Your task to perform on an android device: set an alarm Image 0: 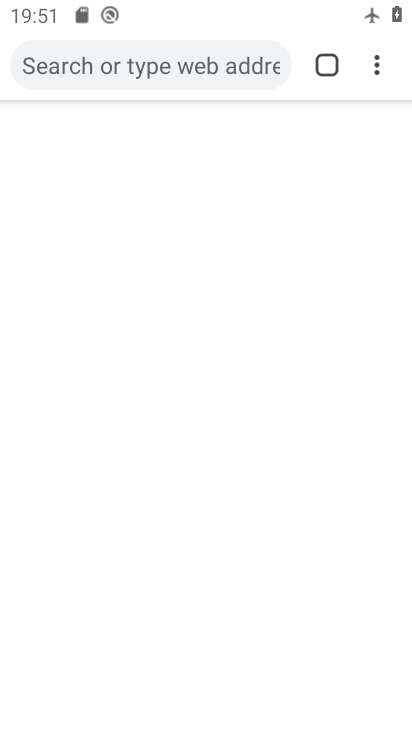
Step 0: click (259, 600)
Your task to perform on an android device: set an alarm Image 1: 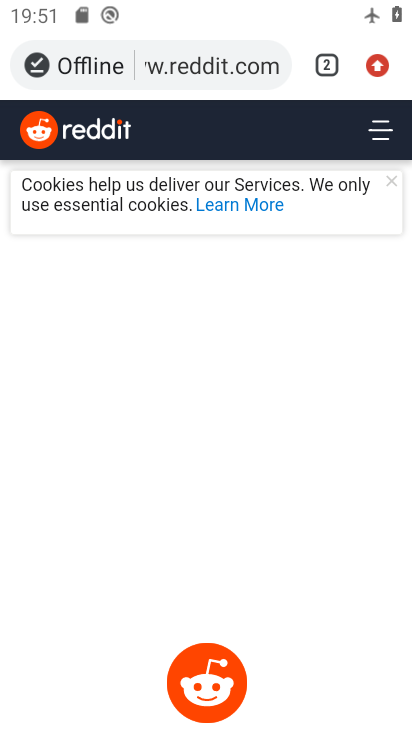
Step 1: press back button
Your task to perform on an android device: set an alarm Image 2: 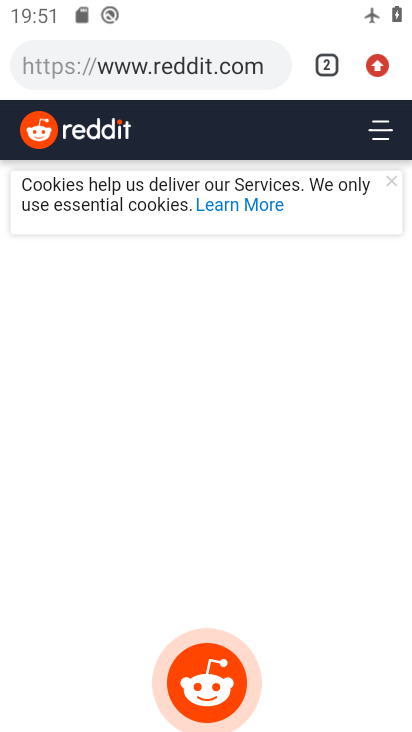
Step 2: press back button
Your task to perform on an android device: set an alarm Image 3: 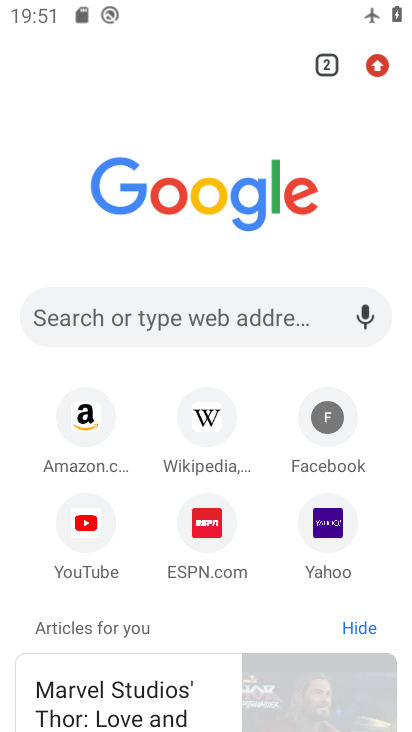
Step 3: press back button
Your task to perform on an android device: set an alarm Image 4: 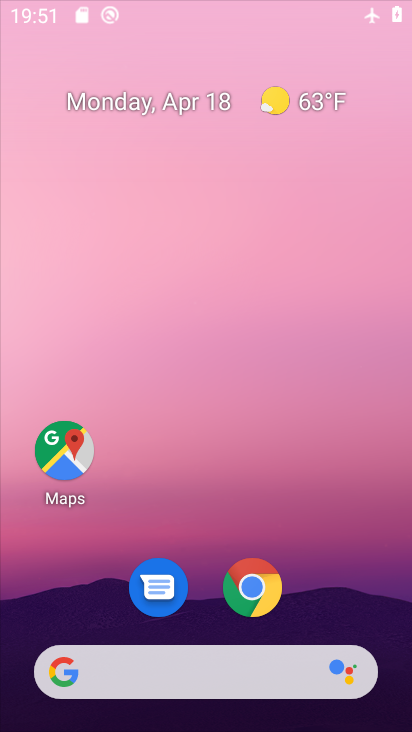
Step 4: press back button
Your task to perform on an android device: set an alarm Image 5: 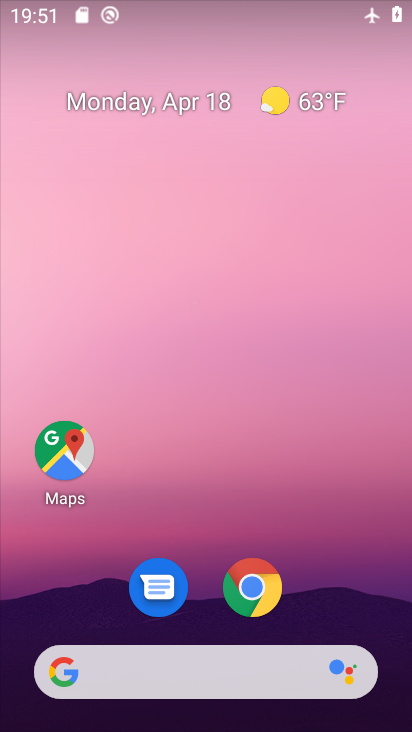
Step 5: drag from (374, 595) to (233, 166)
Your task to perform on an android device: set an alarm Image 6: 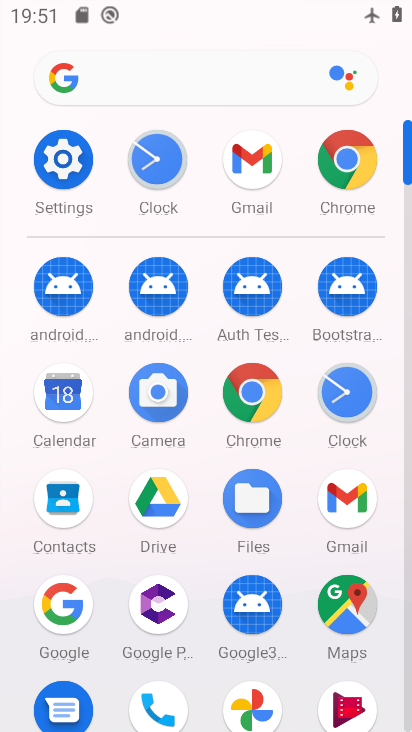
Step 6: click (153, 206)
Your task to perform on an android device: set an alarm Image 7: 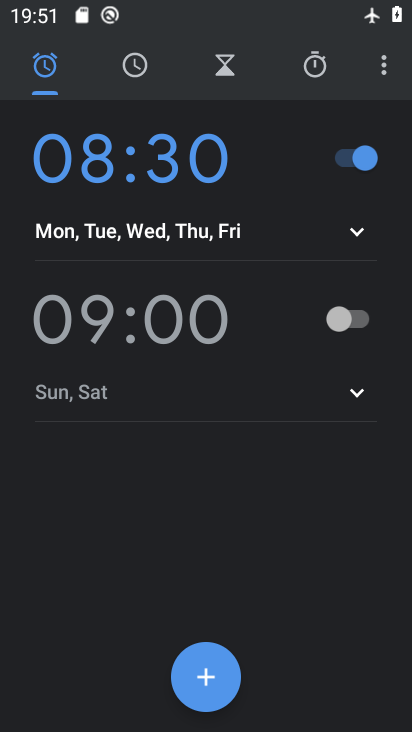
Step 7: click (361, 324)
Your task to perform on an android device: set an alarm Image 8: 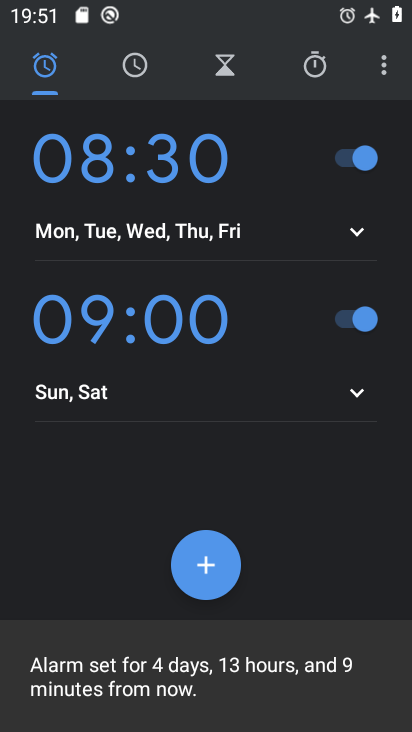
Step 8: task complete